Your task to perform on an android device: Find coffee shops on Maps Image 0: 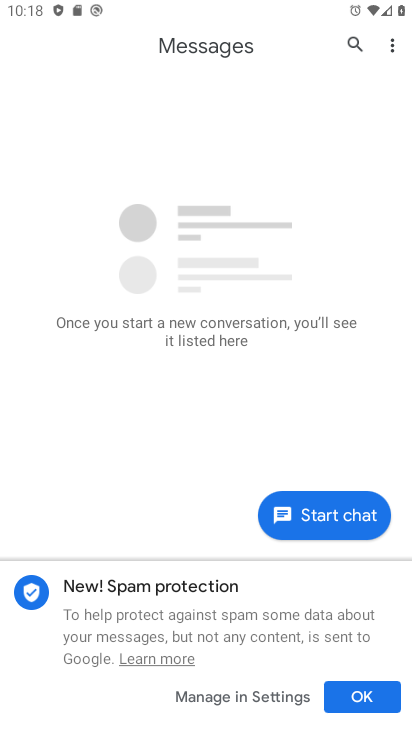
Step 0: press home button
Your task to perform on an android device: Find coffee shops on Maps Image 1: 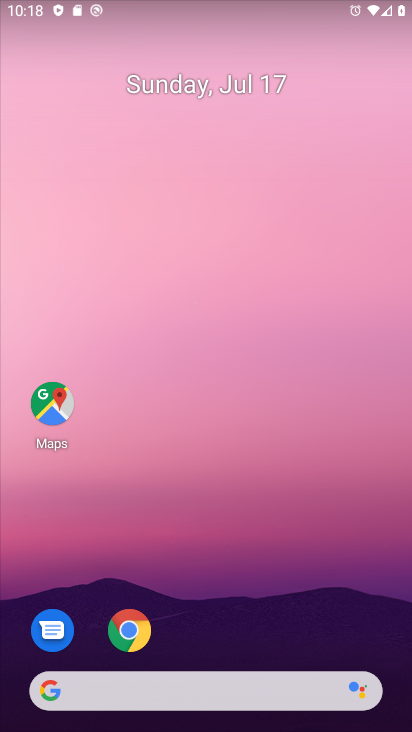
Step 1: drag from (352, 618) to (399, 120)
Your task to perform on an android device: Find coffee shops on Maps Image 2: 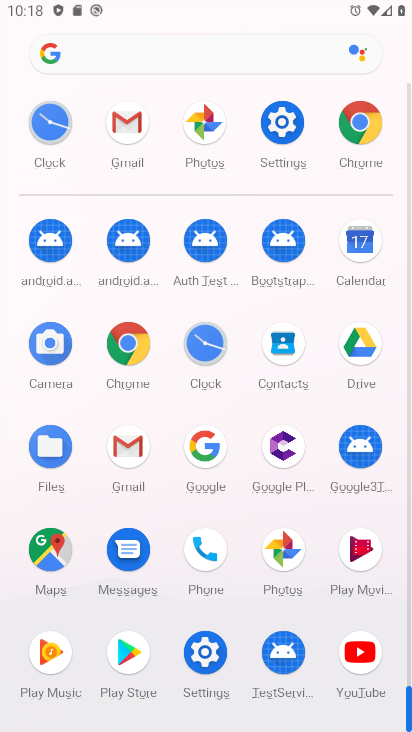
Step 2: click (53, 548)
Your task to perform on an android device: Find coffee shops on Maps Image 3: 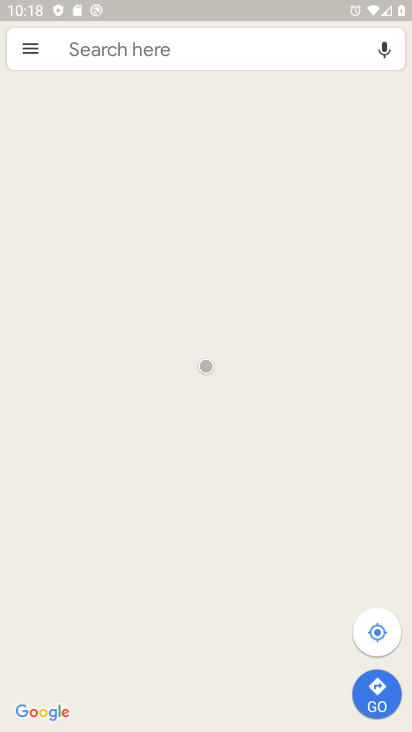
Step 3: click (289, 45)
Your task to perform on an android device: Find coffee shops on Maps Image 4: 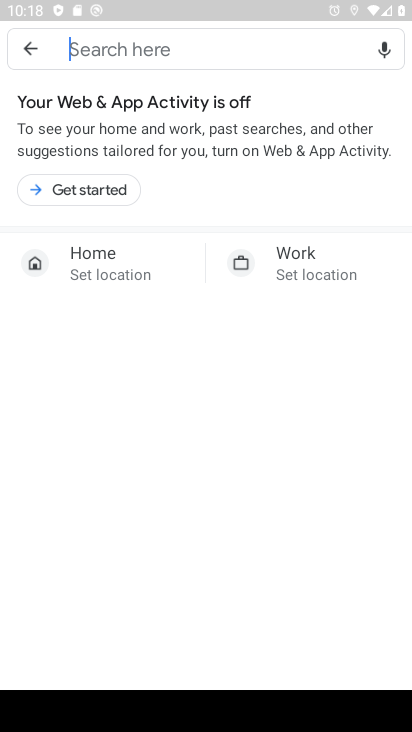
Step 4: type "coffee shops"
Your task to perform on an android device: Find coffee shops on Maps Image 5: 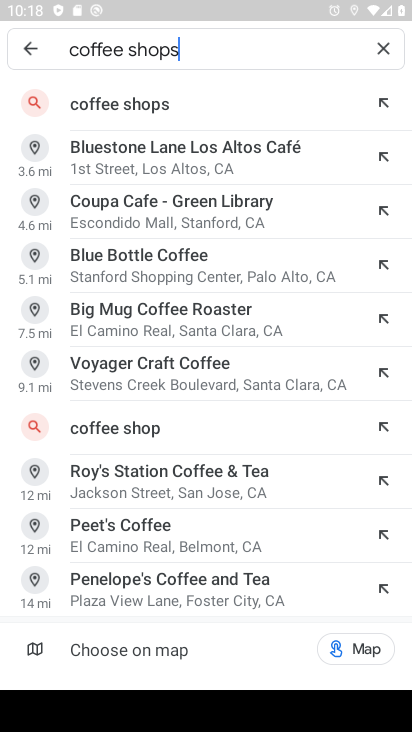
Step 5: click (152, 99)
Your task to perform on an android device: Find coffee shops on Maps Image 6: 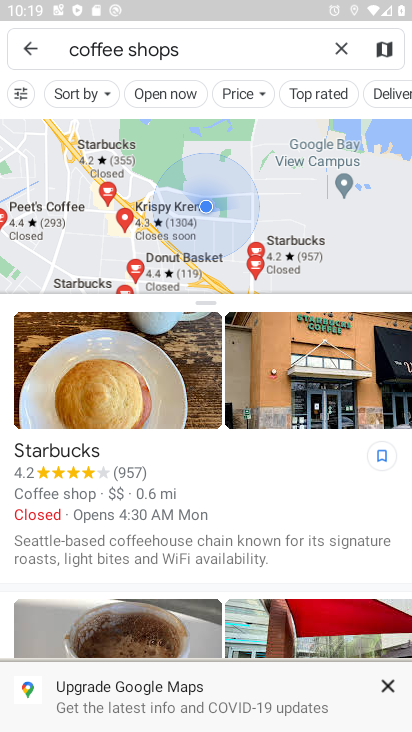
Step 6: task complete